Your task to perform on an android device: Open the phone app and click the voicemail tab. Image 0: 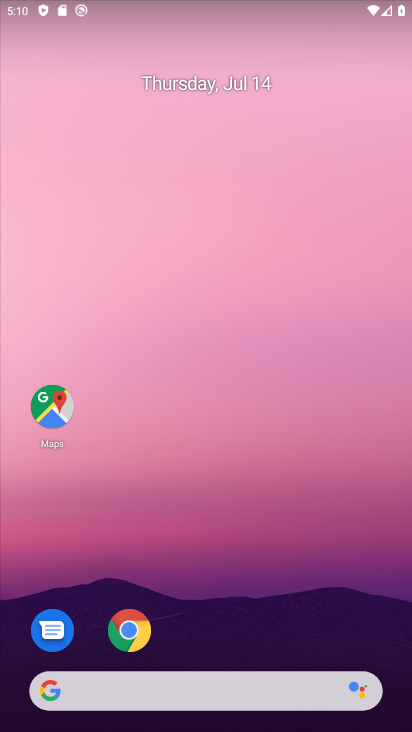
Step 0: press home button
Your task to perform on an android device: Open the phone app and click the voicemail tab. Image 1: 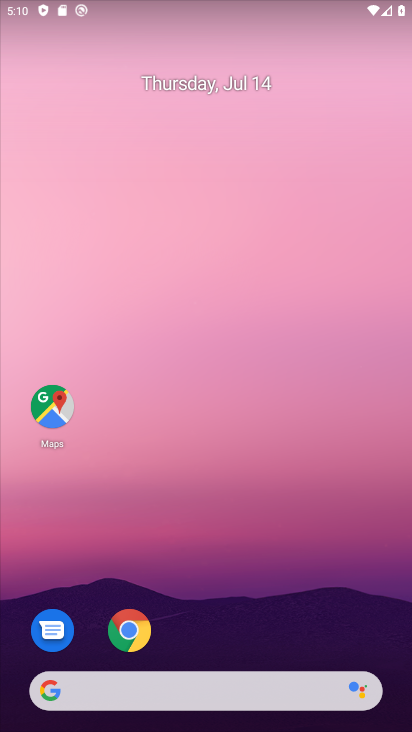
Step 1: drag from (227, 630) to (171, 26)
Your task to perform on an android device: Open the phone app and click the voicemail tab. Image 2: 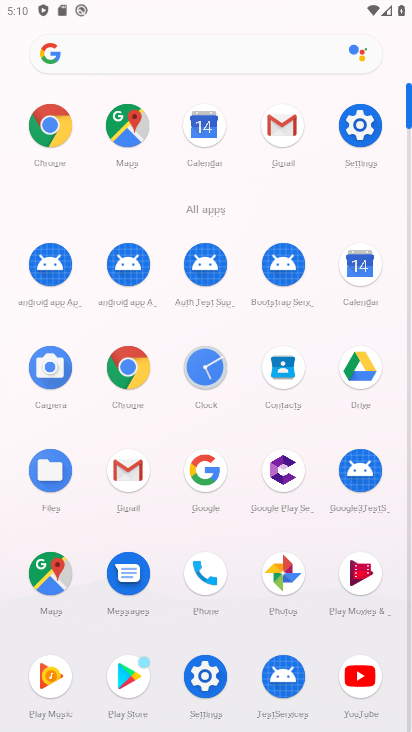
Step 2: click (198, 588)
Your task to perform on an android device: Open the phone app and click the voicemail tab. Image 3: 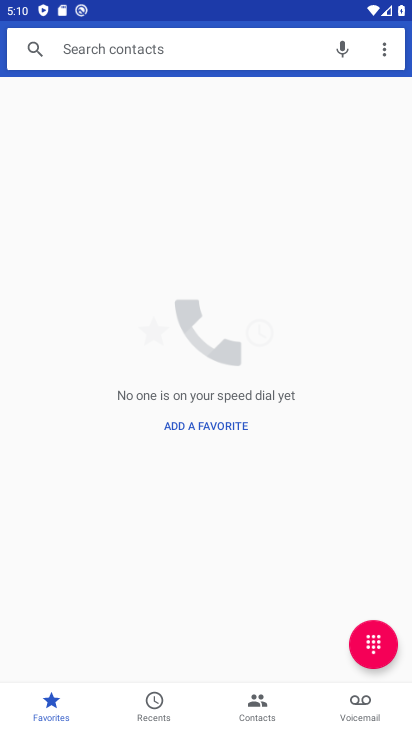
Step 3: click (359, 705)
Your task to perform on an android device: Open the phone app and click the voicemail tab. Image 4: 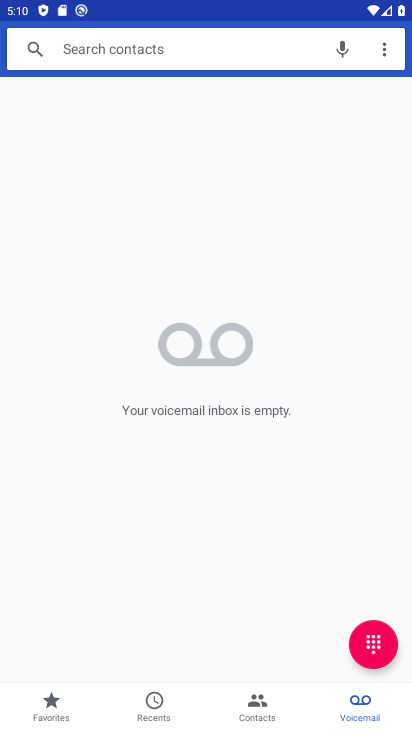
Step 4: press home button
Your task to perform on an android device: Open the phone app and click the voicemail tab. Image 5: 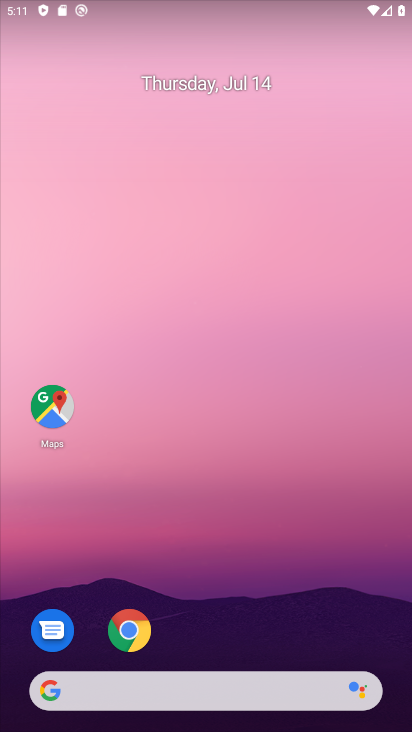
Step 5: drag from (233, 635) to (241, 85)
Your task to perform on an android device: Open the phone app and click the voicemail tab. Image 6: 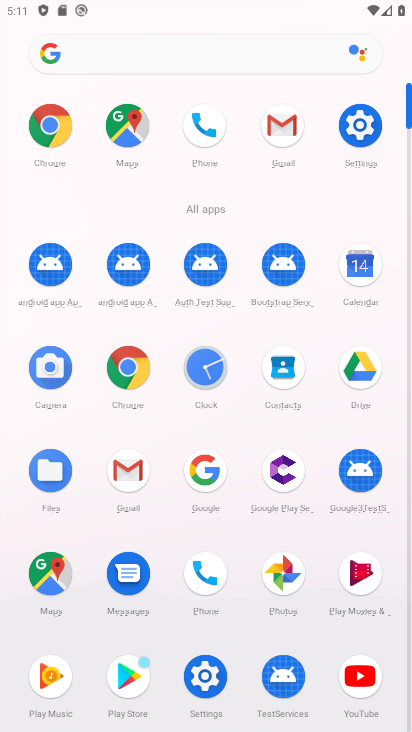
Step 6: click (193, 573)
Your task to perform on an android device: Open the phone app and click the voicemail tab. Image 7: 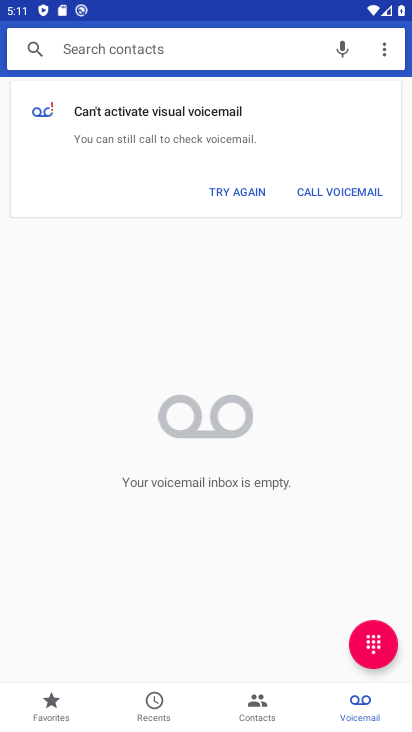
Step 7: click (364, 704)
Your task to perform on an android device: Open the phone app and click the voicemail tab. Image 8: 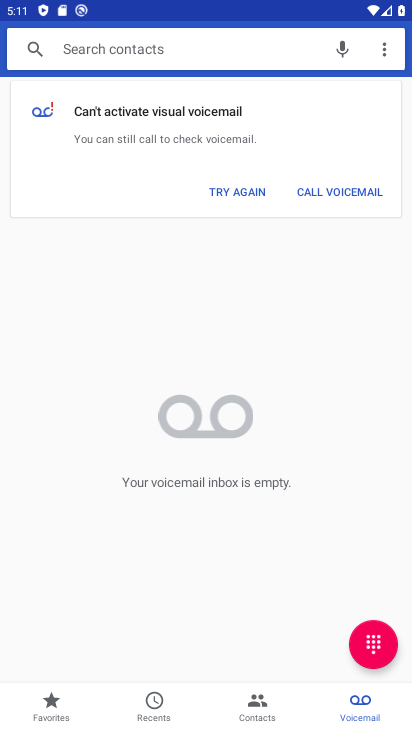
Step 8: task complete